Your task to perform on an android device: Open Google Image 0: 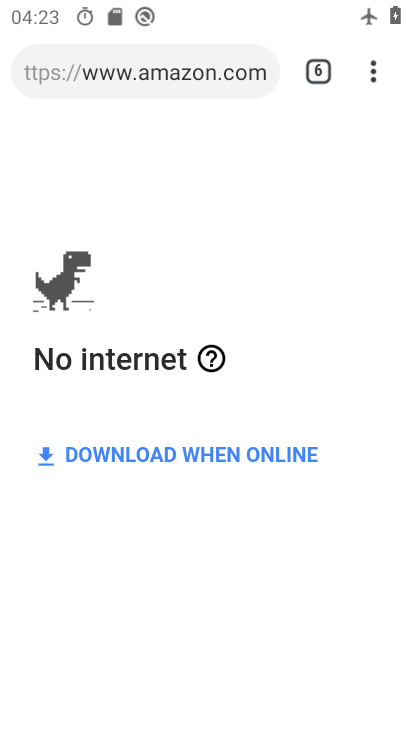
Step 0: press home button
Your task to perform on an android device: Open Google Image 1: 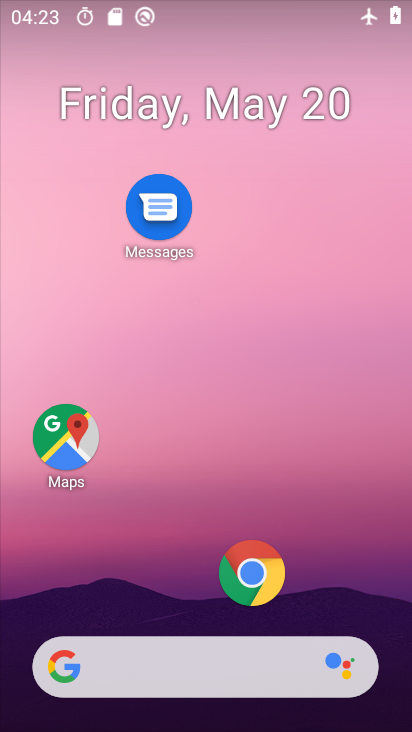
Step 1: drag from (173, 580) to (254, 89)
Your task to perform on an android device: Open Google Image 2: 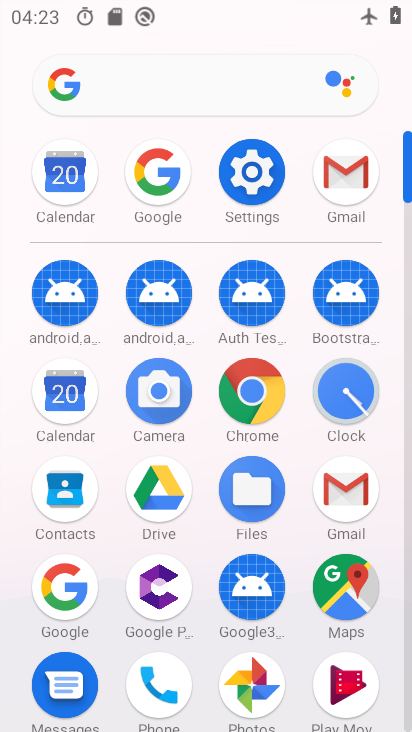
Step 2: click (148, 180)
Your task to perform on an android device: Open Google Image 3: 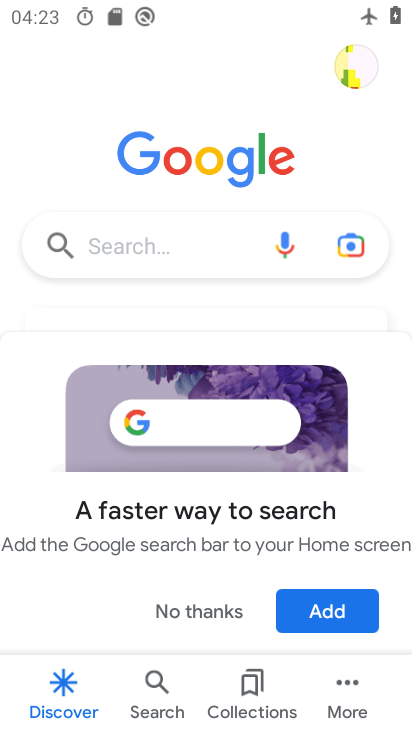
Step 3: task complete